Your task to perform on an android device: turn off priority inbox in the gmail app Image 0: 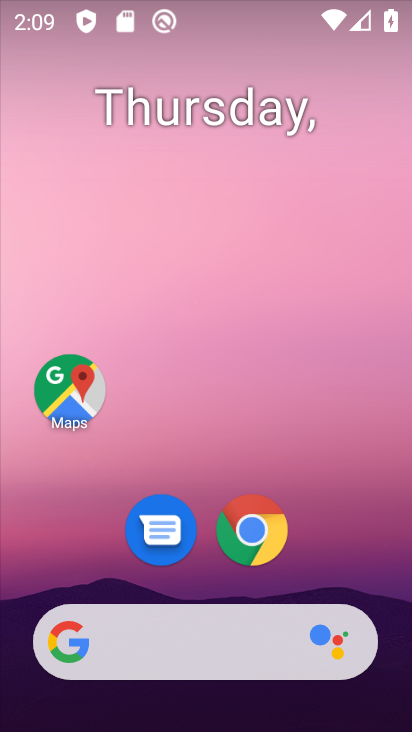
Step 0: drag from (193, 710) to (178, 0)
Your task to perform on an android device: turn off priority inbox in the gmail app Image 1: 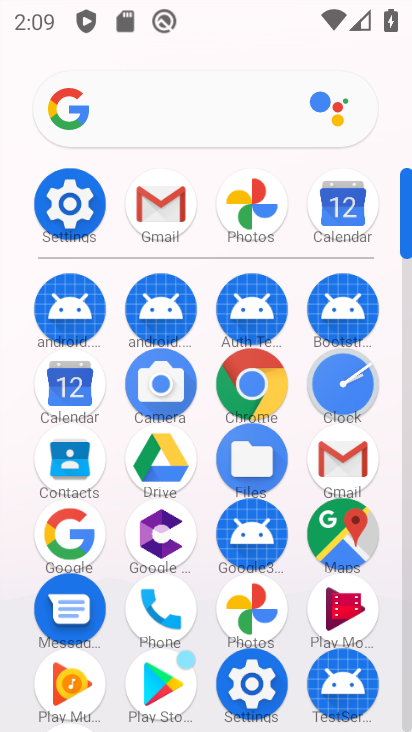
Step 1: click (175, 217)
Your task to perform on an android device: turn off priority inbox in the gmail app Image 2: 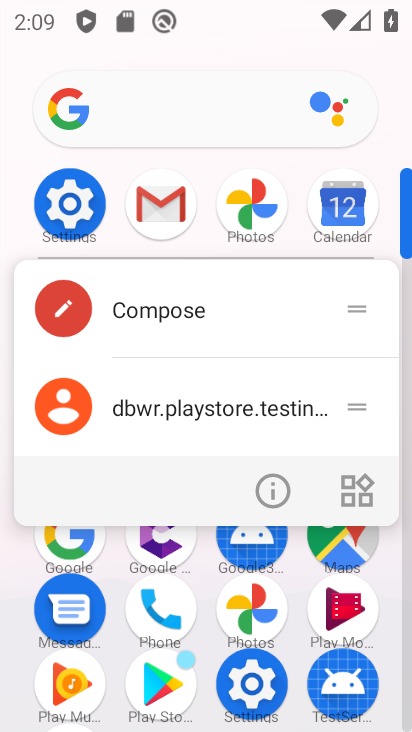
Step 2: click (143, 212)
Your task to perform on an android device: turn off priority inbox in the gmail app Image 3: 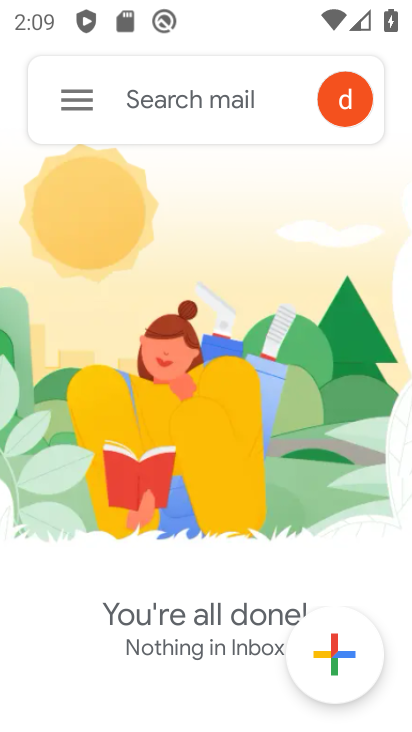
Step 3: click (64, 99)
Your task to perform on an android device: turn off priority inbox in the gmail app Image 4: 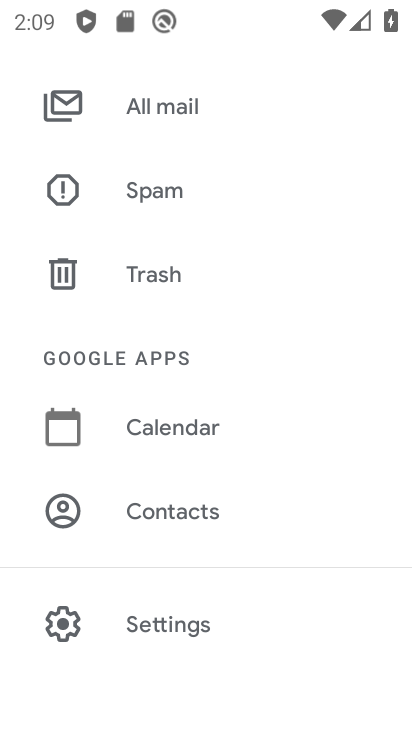
Step 4: click (160, 616)
Your task to perform on an android device: turn off priority inbox in the gmail app Image 5: 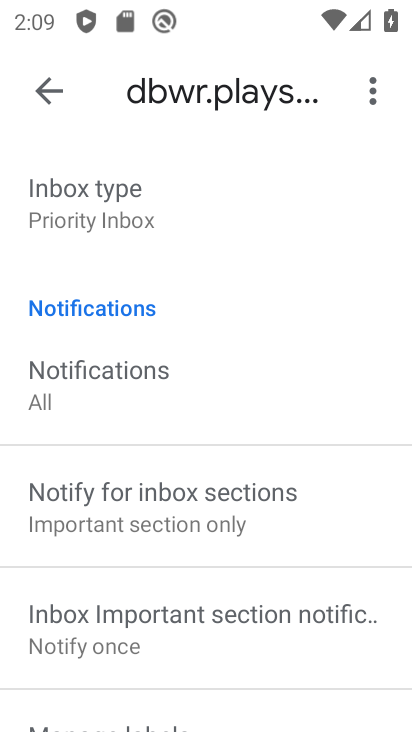
Step 5: click (150, 218)
Your task to perform on an android device: turn off priority inbox in the gmail app Image 6: 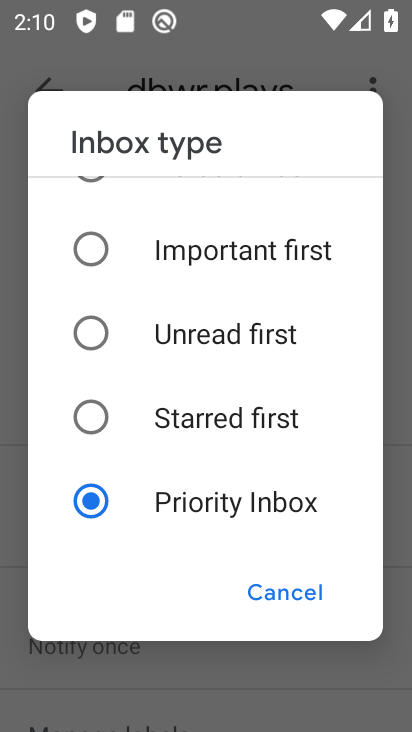
Step 6: click (91, 249)
Your task to perform on an android device: turn off priority inbox in the gmail app Image 7: 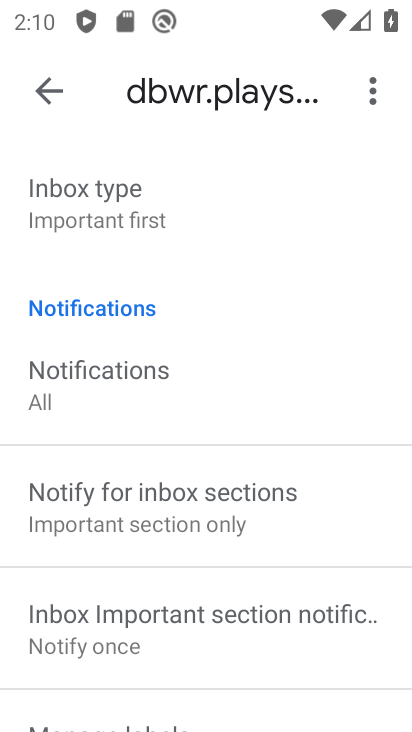
Step 7: task complete